Your task to perform on an android device: Is it going to rain today? Image 0: 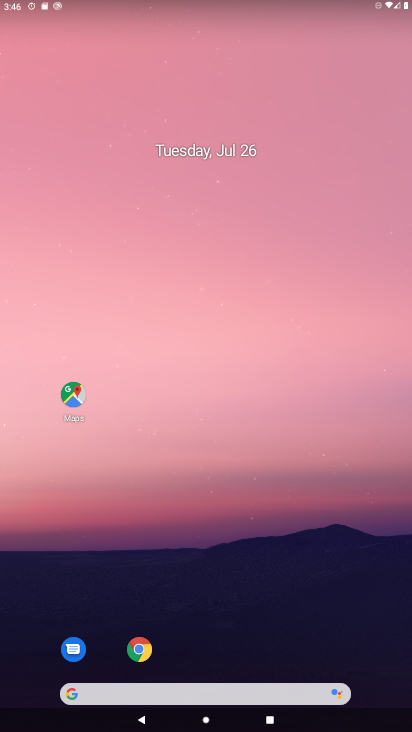
Step 0: drag from (351, 617) to (123, 80)
Your task to perform on an android device: Is it going to rain today? Image 1: 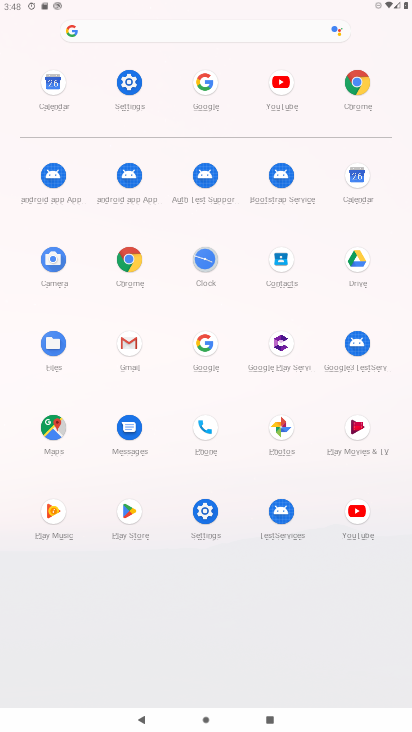
Step 1: click (210, 346)
Your task to perform on an android device: Is it going to rain today? Image 2: 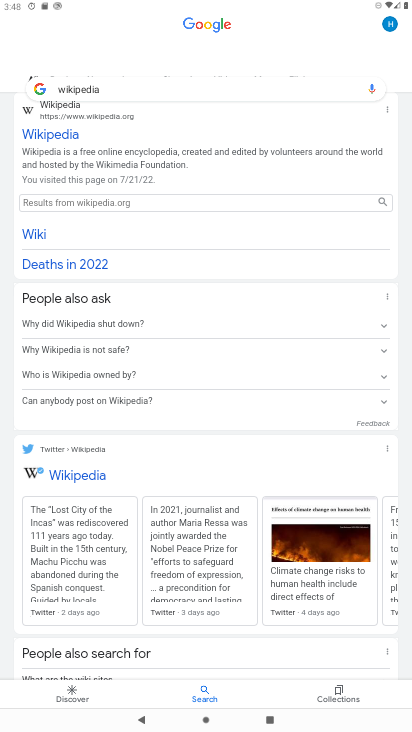
Step 2: press back button
Your task to perform on an android device: Is it going to rain today? Image 3: 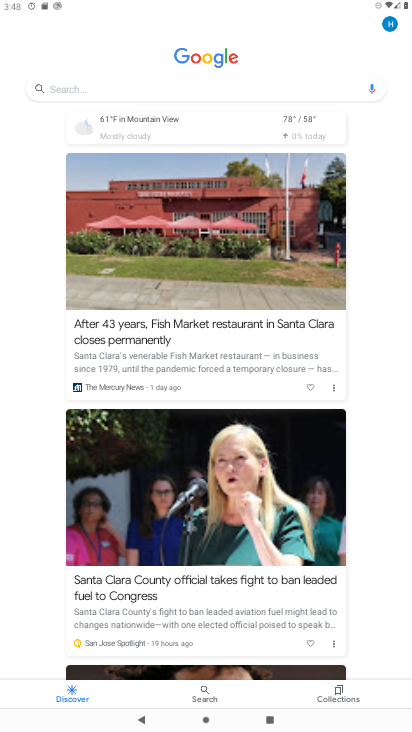
Step 3: click (111, 90)
Your task to perform on an android device: Is it going to rain today? Image 4: 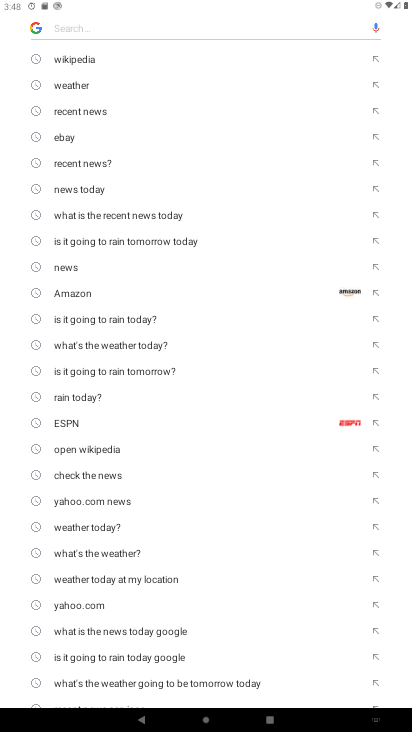
Step 4: type "Is it going to rain today?"
Your task to perform on an android device: Is it going to rain today? Image 5: 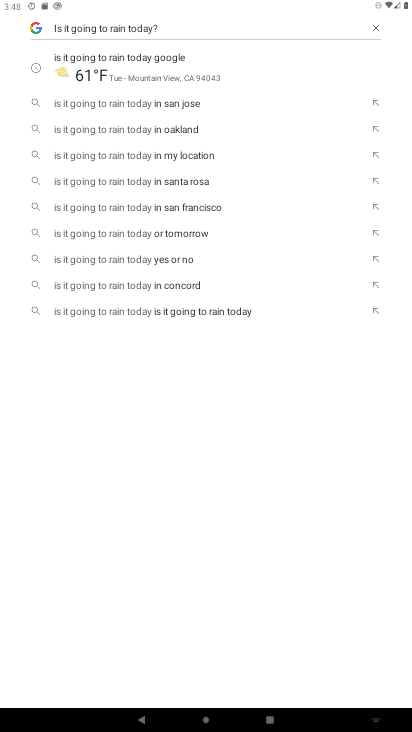
Step 5: click (133, 65)
Your task to perform on an android device: Is it going to rain today? Image 6: 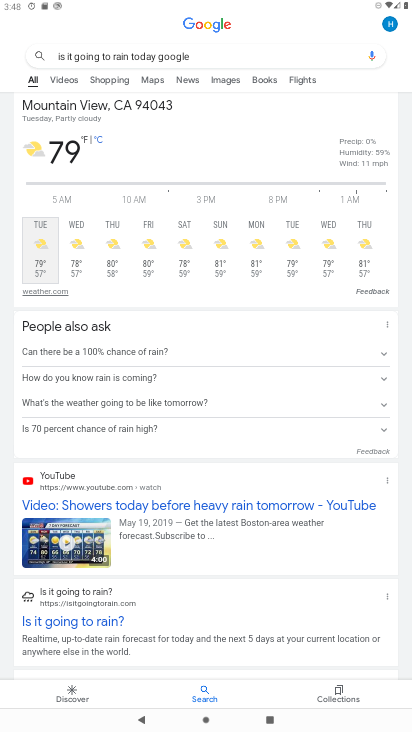
Step 6: task complete